Your task to perform on an android device: Open Google Maps Image 0: 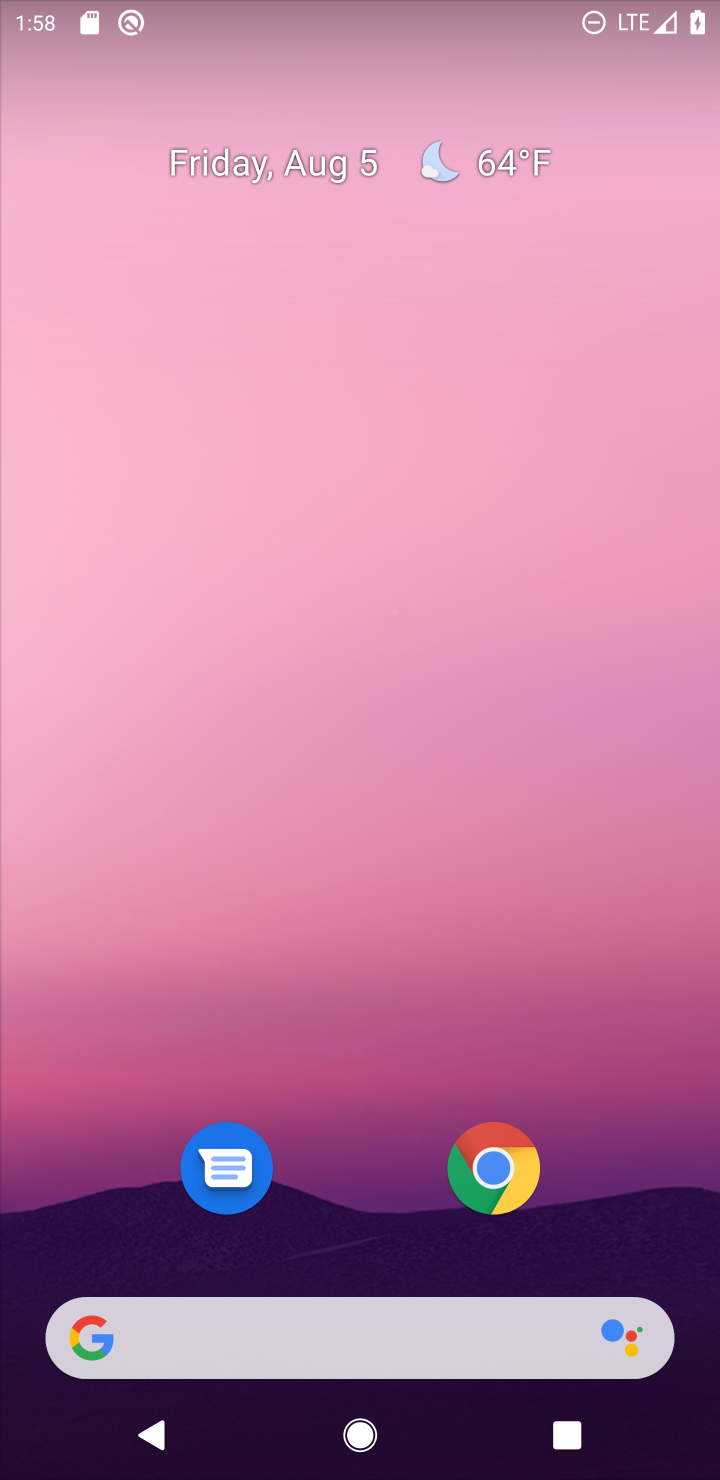
Step 0: drag from (617, 1194) to (400, 40)
Your task to perform on an android device: Open Google Maps Image 1: 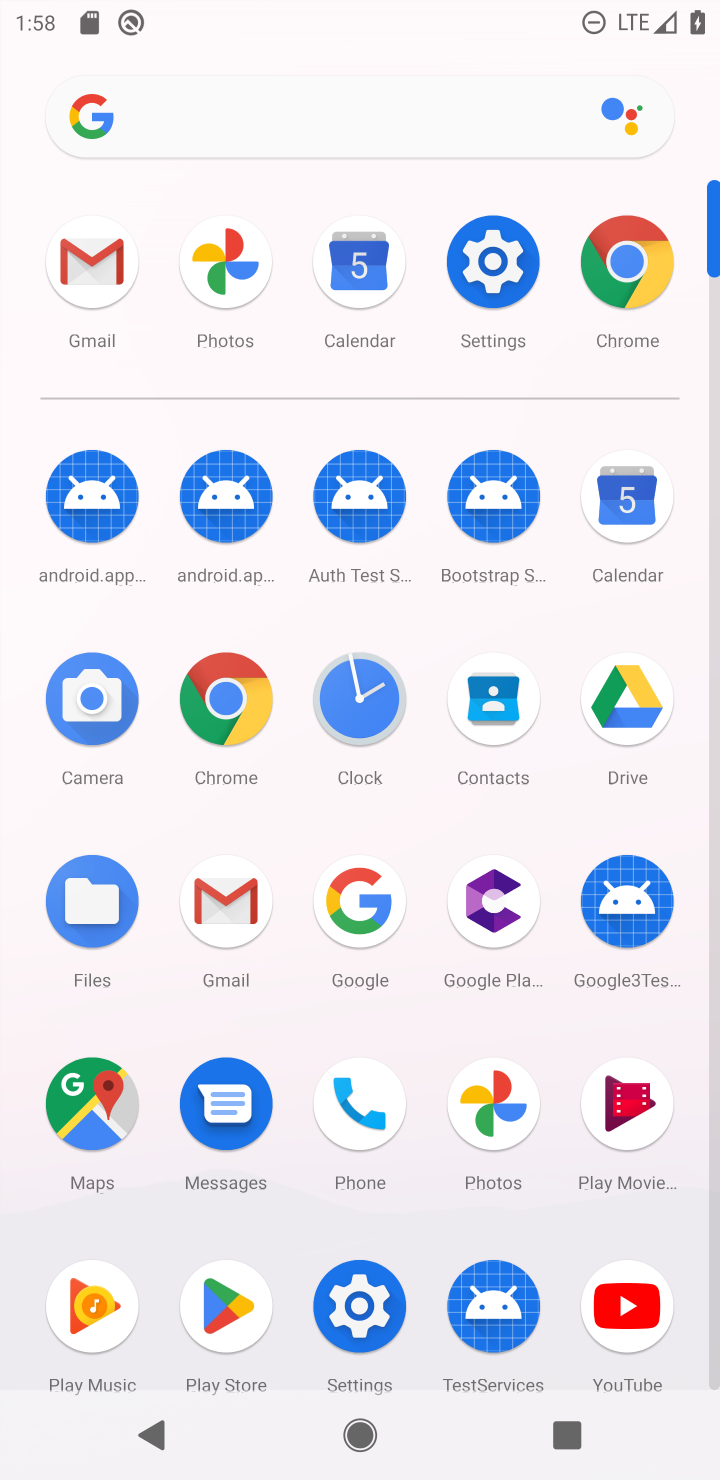
Step 1: click (89, 1097)
Your task to perform on an android device: Open Google Maps Image 2: 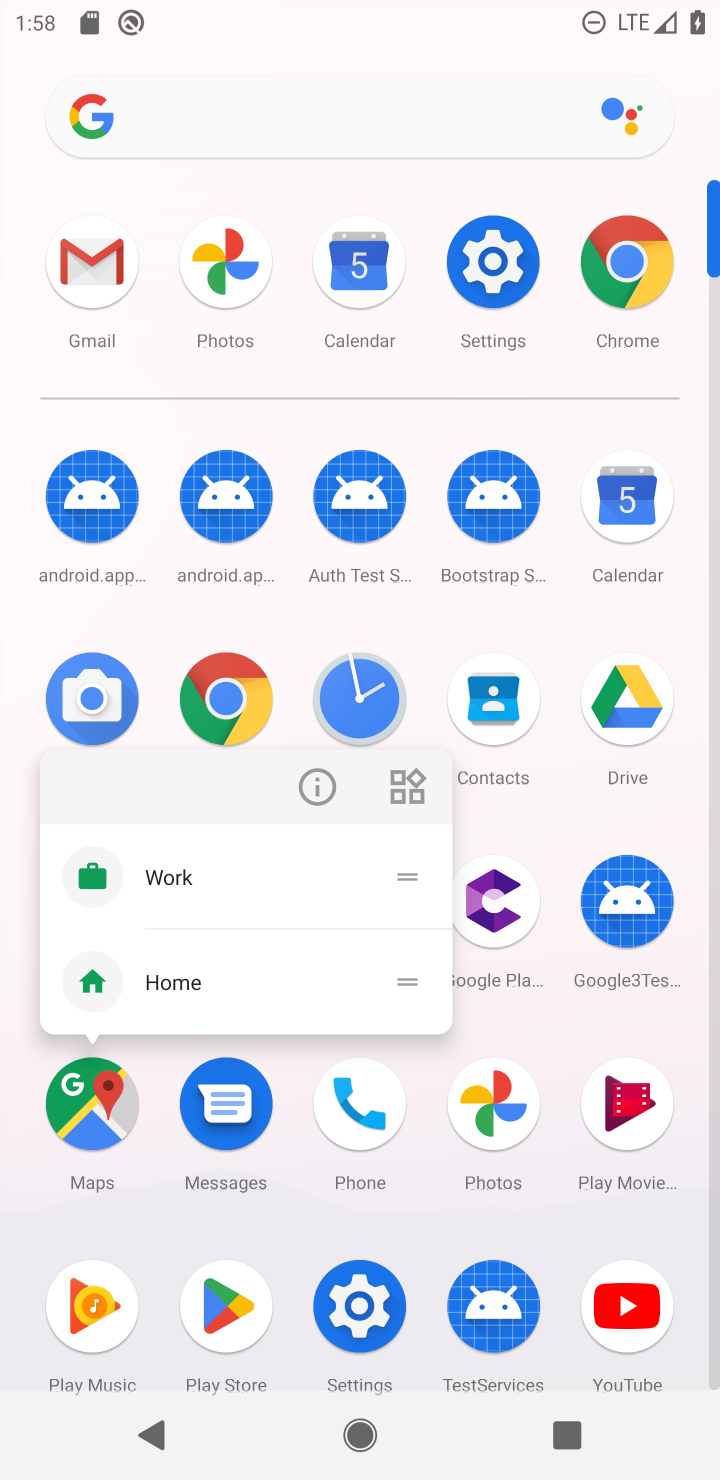
Step 2: click (89, 1097)
Your task to perform on an android device: Open Google Maps Image 3: 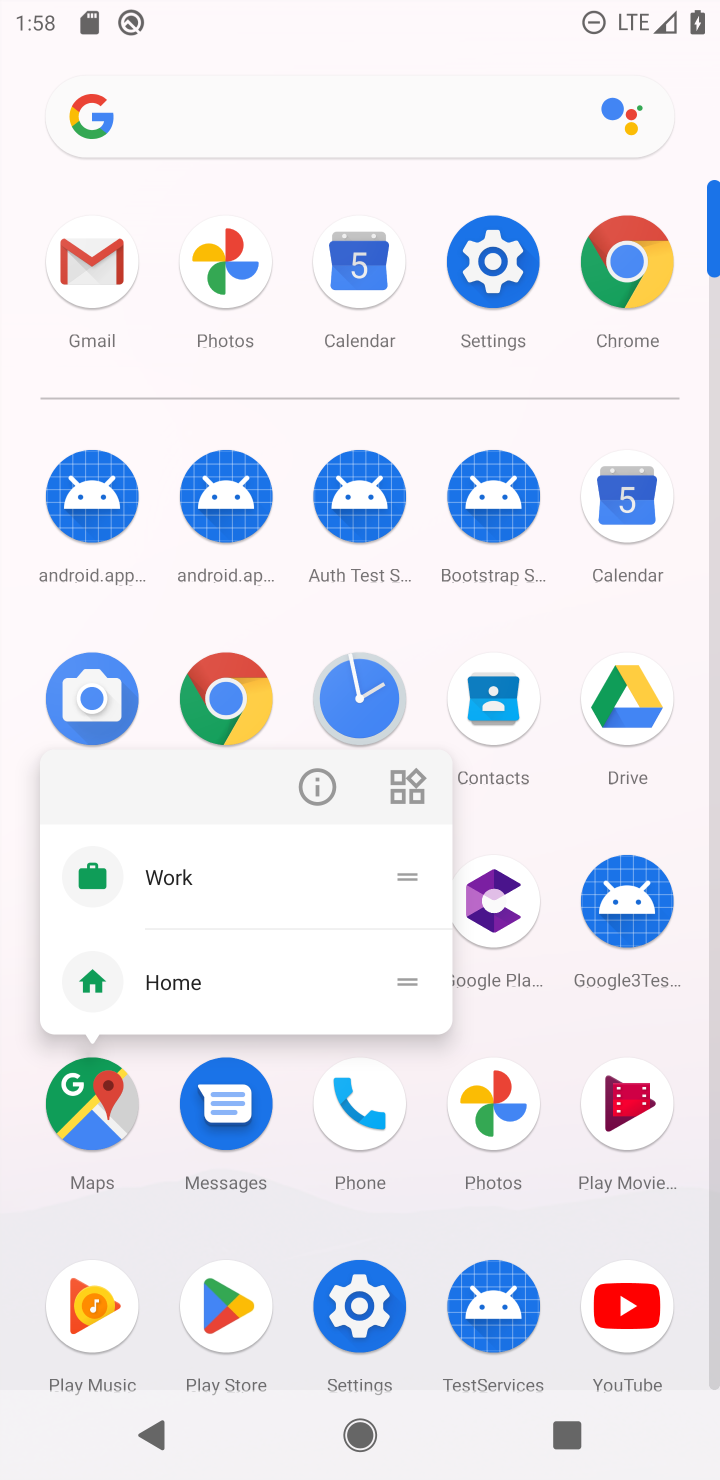
Step 3: click (106, 1115)
Your task to perform on an android device: Open Google Maps Image 4: 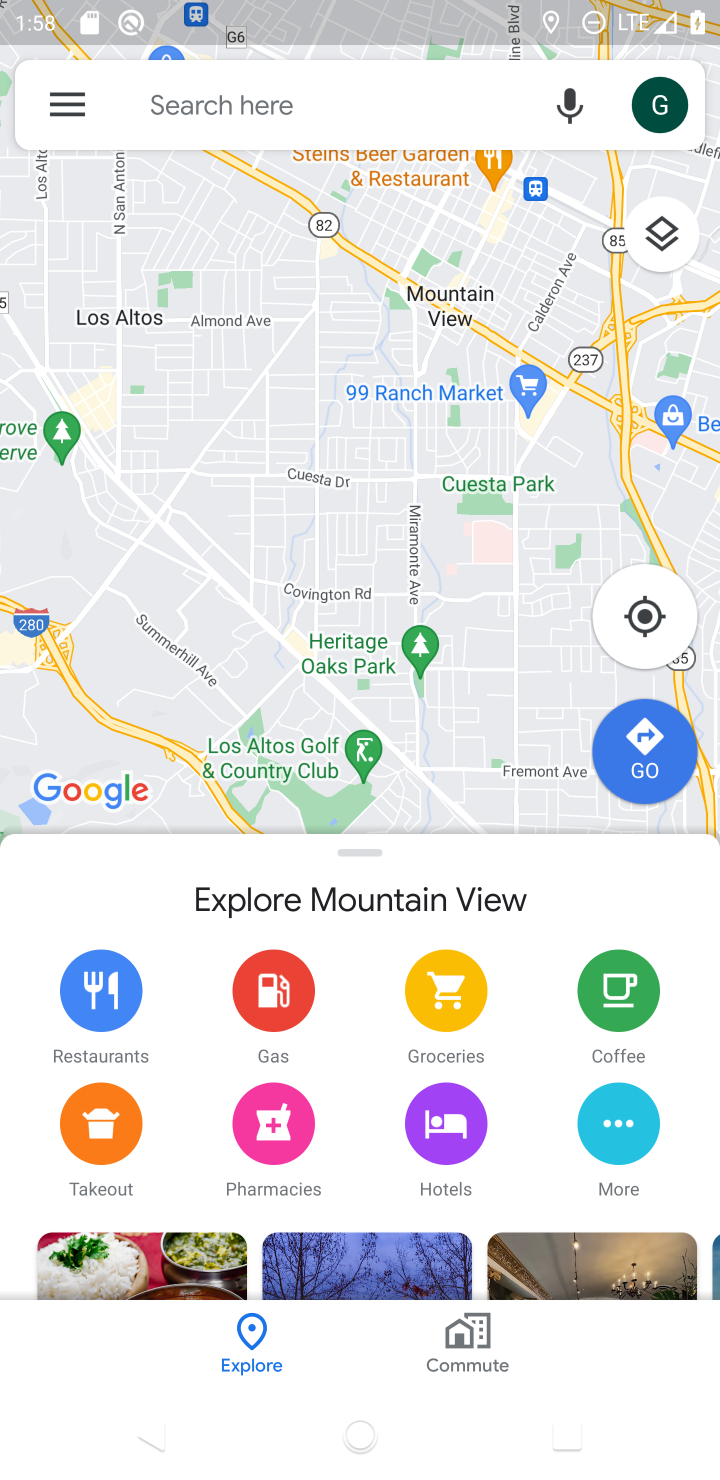
Step 4: task complete